Your task to perform on an android device: Open internet settings Image 0: 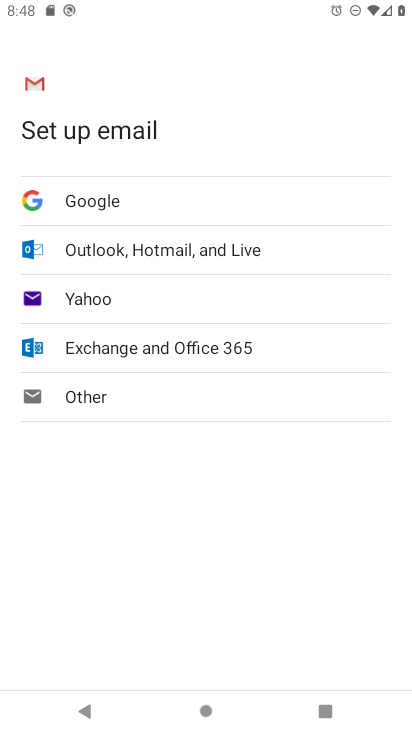
Step 0: press home button
Your task to perform on an android device: Open internet settings Image 1: 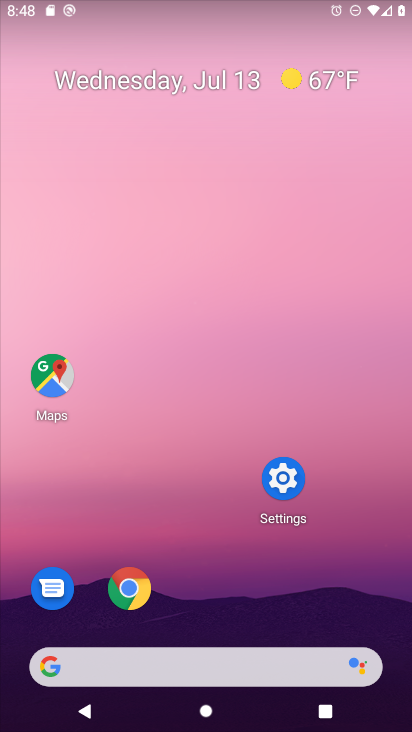
Step 1: click (296, 498)
Your task to perform on an android device: Open internet settings Image 2: 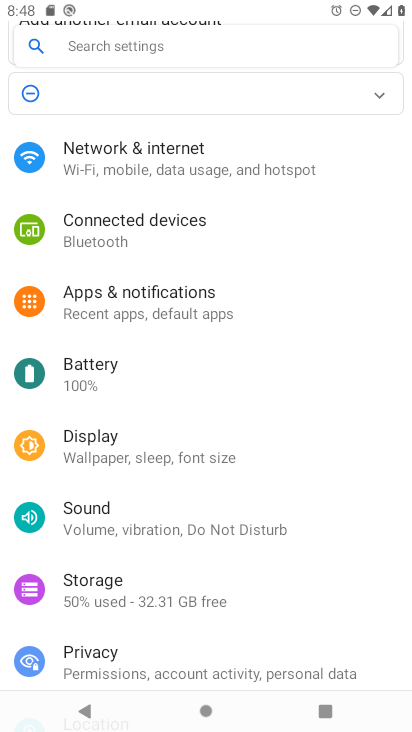
Step 2: click (191, 168)
Your task to perform on an android device: Open internet settings Image 3: 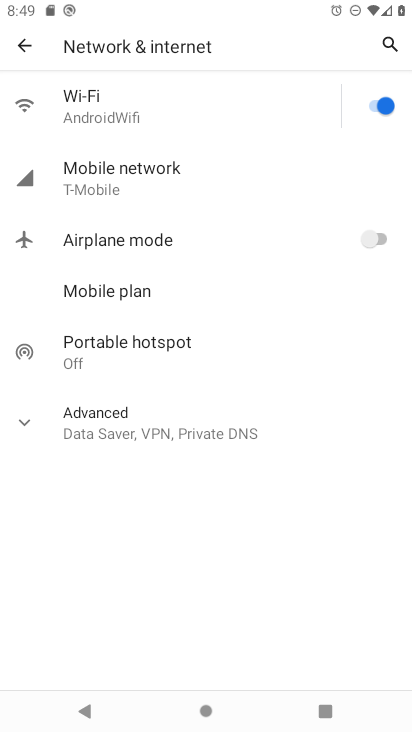
Step 3: task complete